Your task to perform on an android device: Open sound settings Image 0: 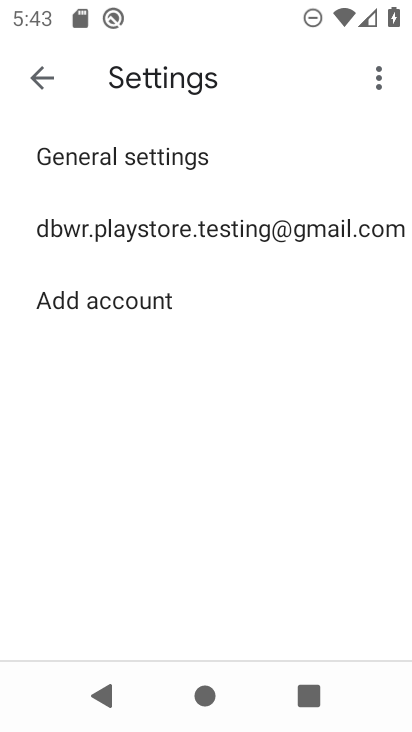
Step 0: press home button
Your task to perform on an android device: Open sound settings Image 1: 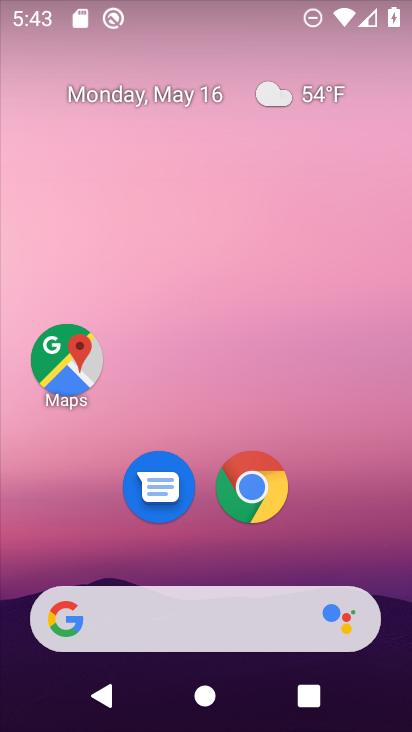
Step 1: drag from (177, 444) to (168, 231)
Your task to perform on an android device: Open sound settings Image 2: 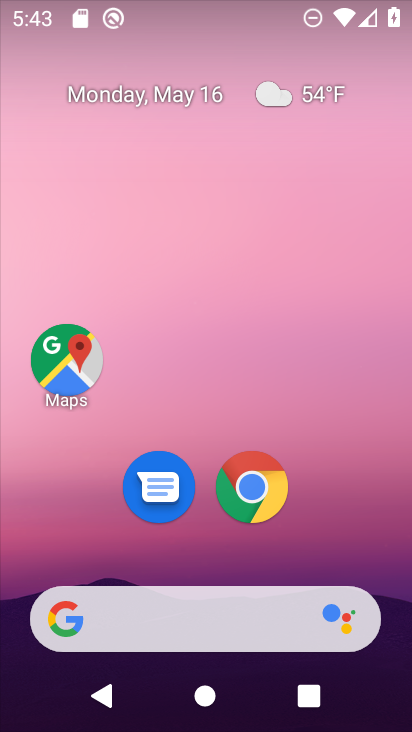
Step 2: drag from (199, 563) to (166, 247)
Your task to perform on an android device: Open sound settings Image 3: 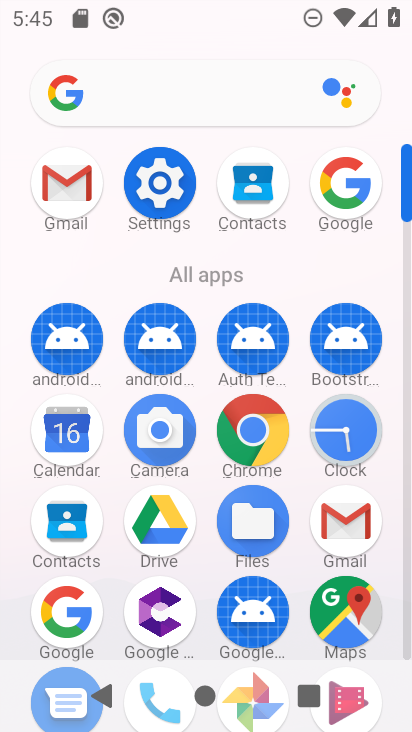
Step 3: click (146, 204)
Your task to perform on an android device: Open sound settings Image 4: 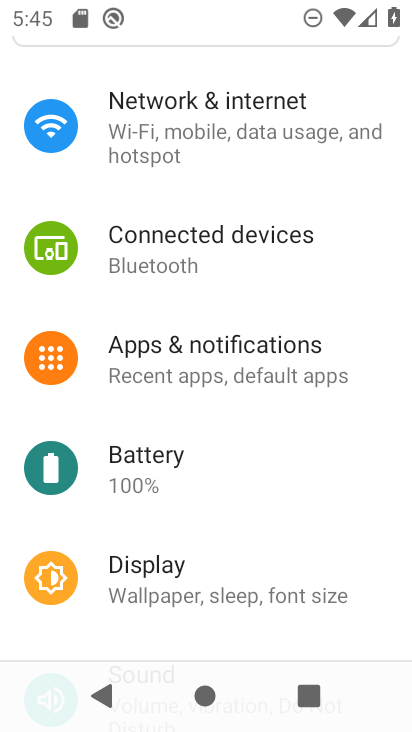
Step 4: drag from (200, 610) to (232, 228)
Your task to perform on an android device: Open sound settings Image 5: 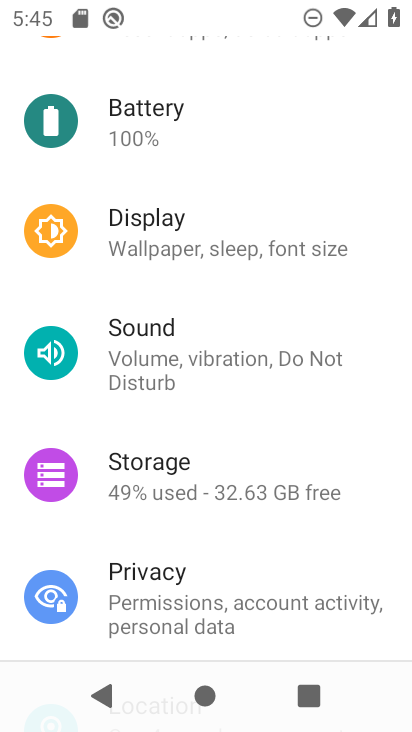
Step 5: click (194, 372)
Your task to perform on an android device: Open sound settings Image 6: 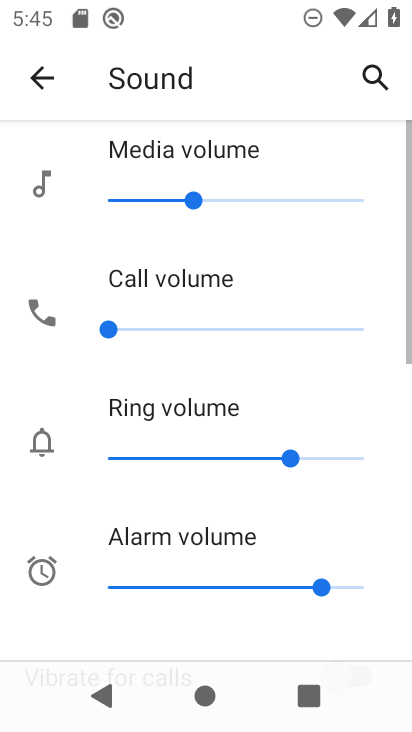
Step 6: task complete